Your task to perform on an android device: turn off translation in the chrome app Image 0: 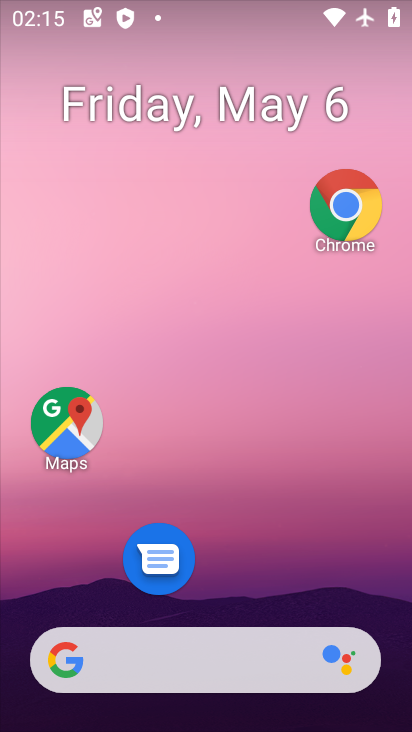
Step 0: drag from (162, 657) to (318, 74)
Your task to perform on an android device: turn off translation in the chrome app Image 1: 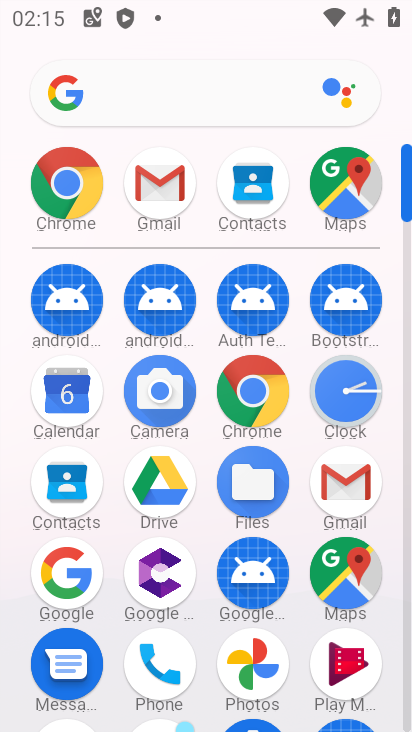
Step 1: click (80, 181)
Your task to perform on an android device: turn off translation in the chrome app Image 2: 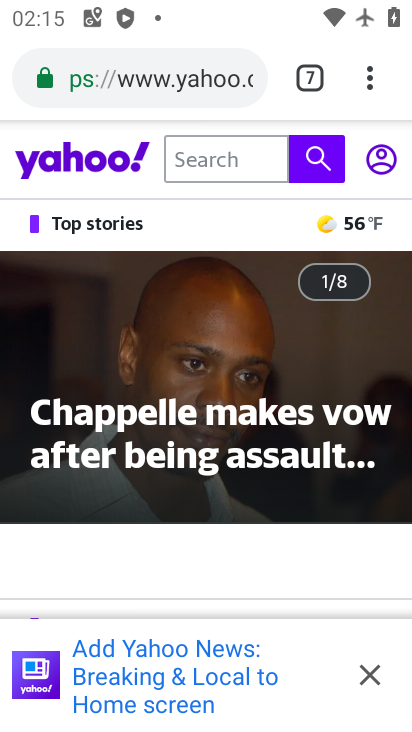
Step 2: drag from (372, 78) to (181, 626)
Your task to perform on an android device: turn off translation in the chrome app Image 3: 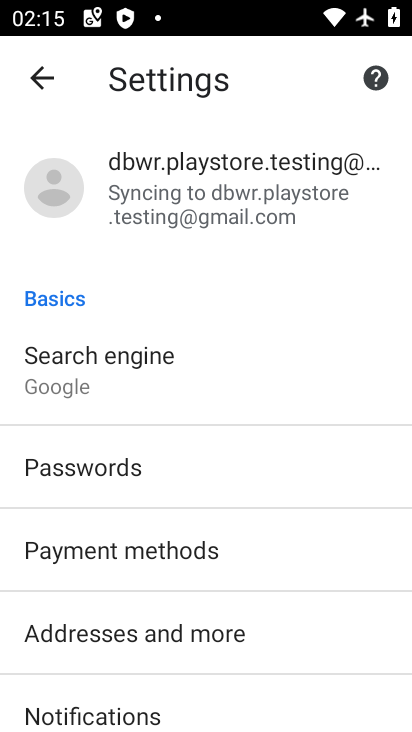
Step 3: drag from (116, 685) to (296, 141)
Your task to perform on an android device: turn off translation in the chrome app Image 4: 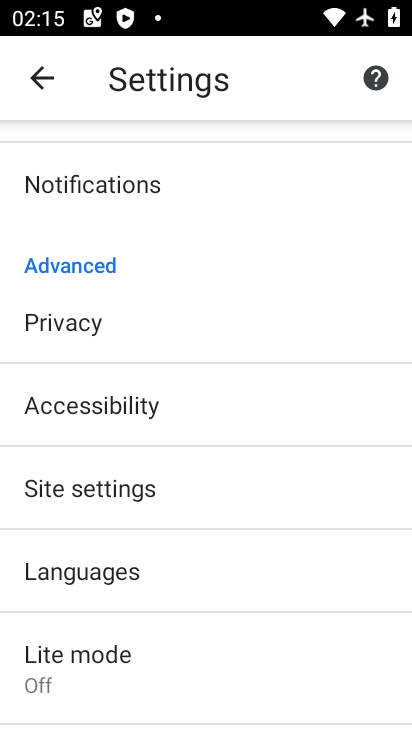
Step 4: click (145, 570)
Your task to perform on an android device: turn off translation in the chrome app Image 5: 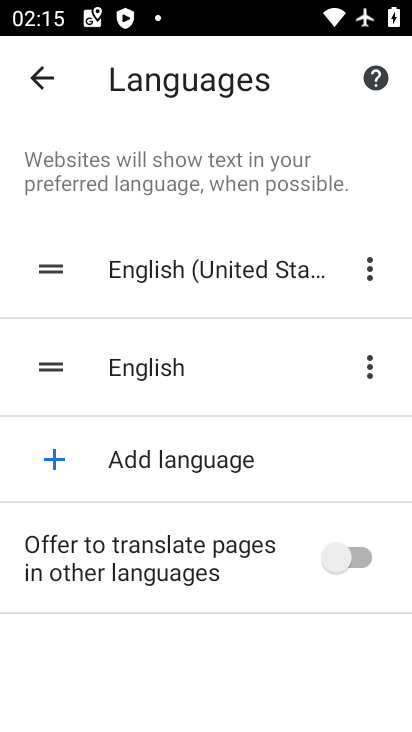
Step 5: task complete